Your task to perform on an android device: uninstall "Grab" Image 0: 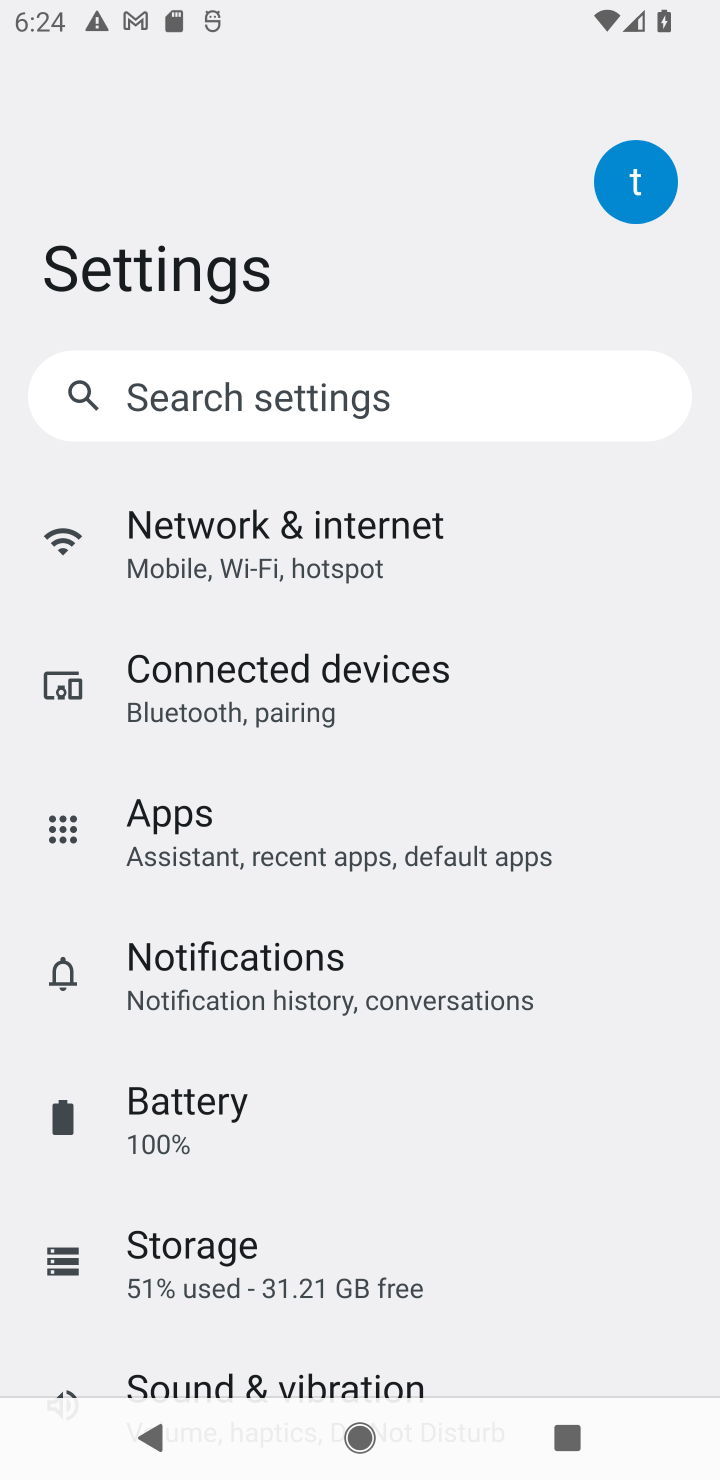
Step 0: press home button
Your task to perform on an android device: uninstall "Grab" Image 1: 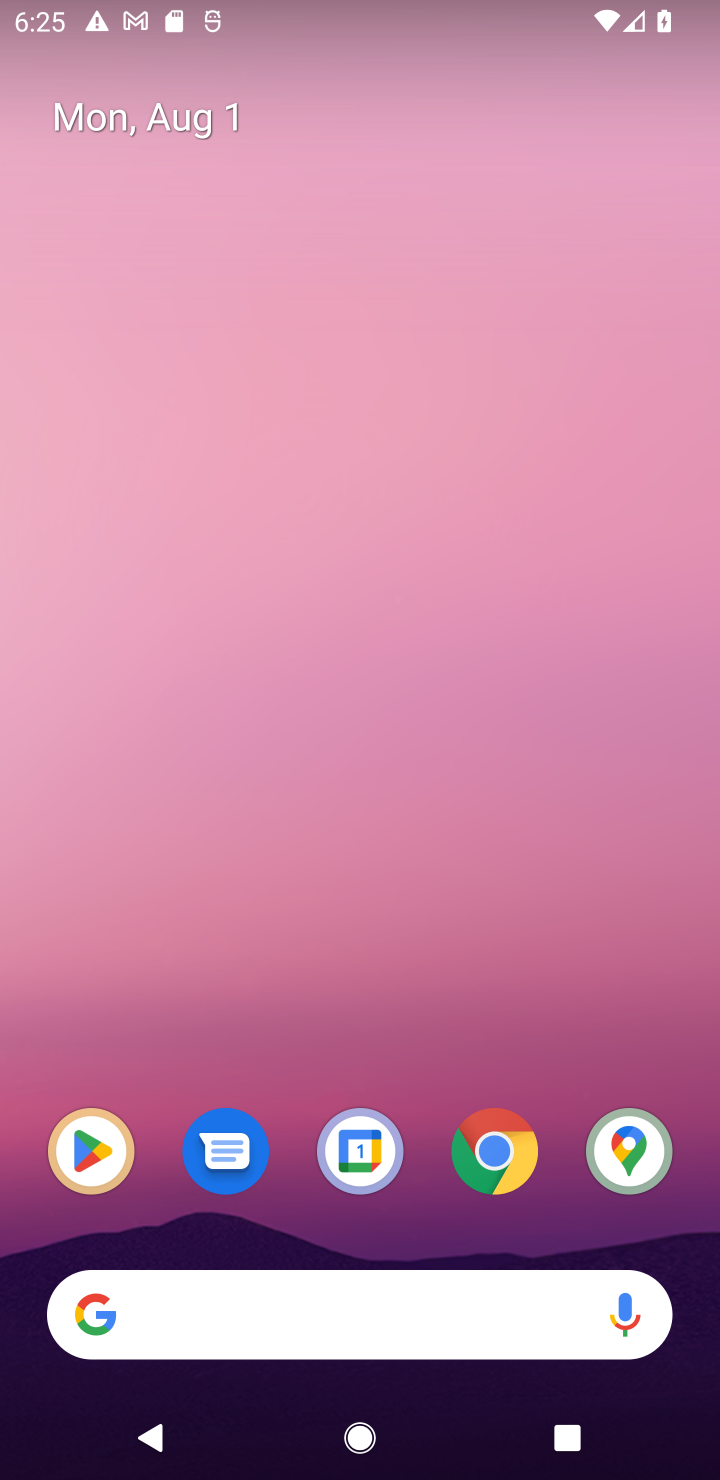
Step 1: drag from (220, 1317) to (234, 197)
Your task to perform on an android device: uninstall "Grab" Image 2: 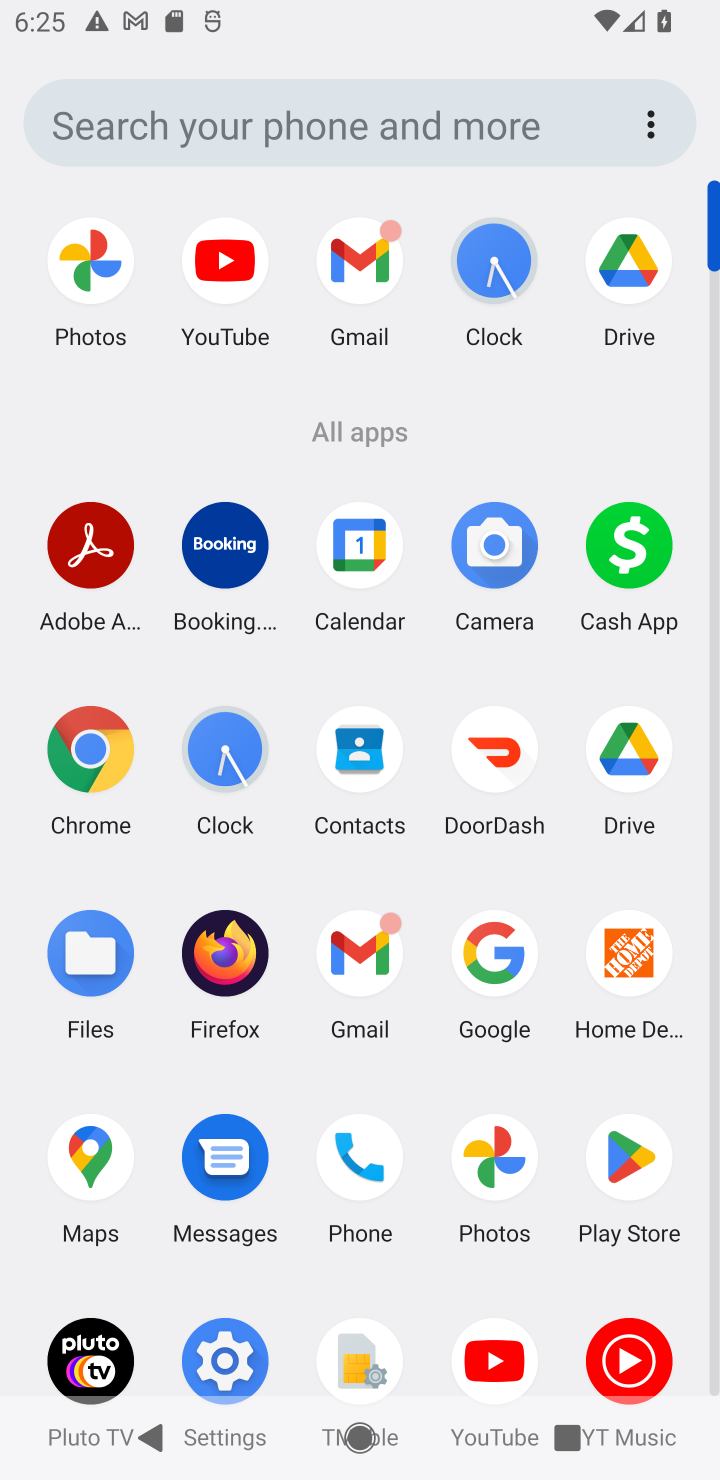
Step 2: click (621, 1169)
Your task to perform on an android device: uninstall "Grab" Image 3: 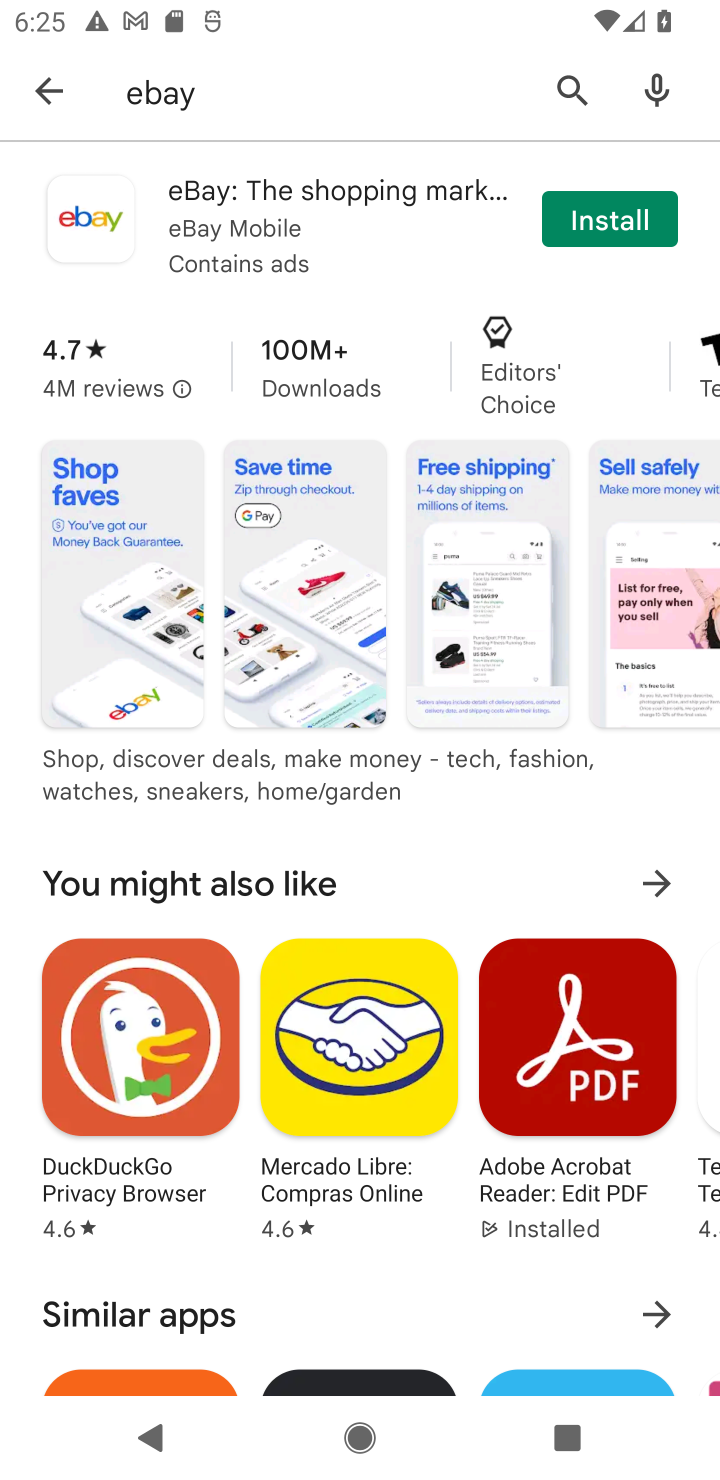
Step 3: click (551, 92)
Your task to perform on an android device: uninstall "Grab" Image 4: 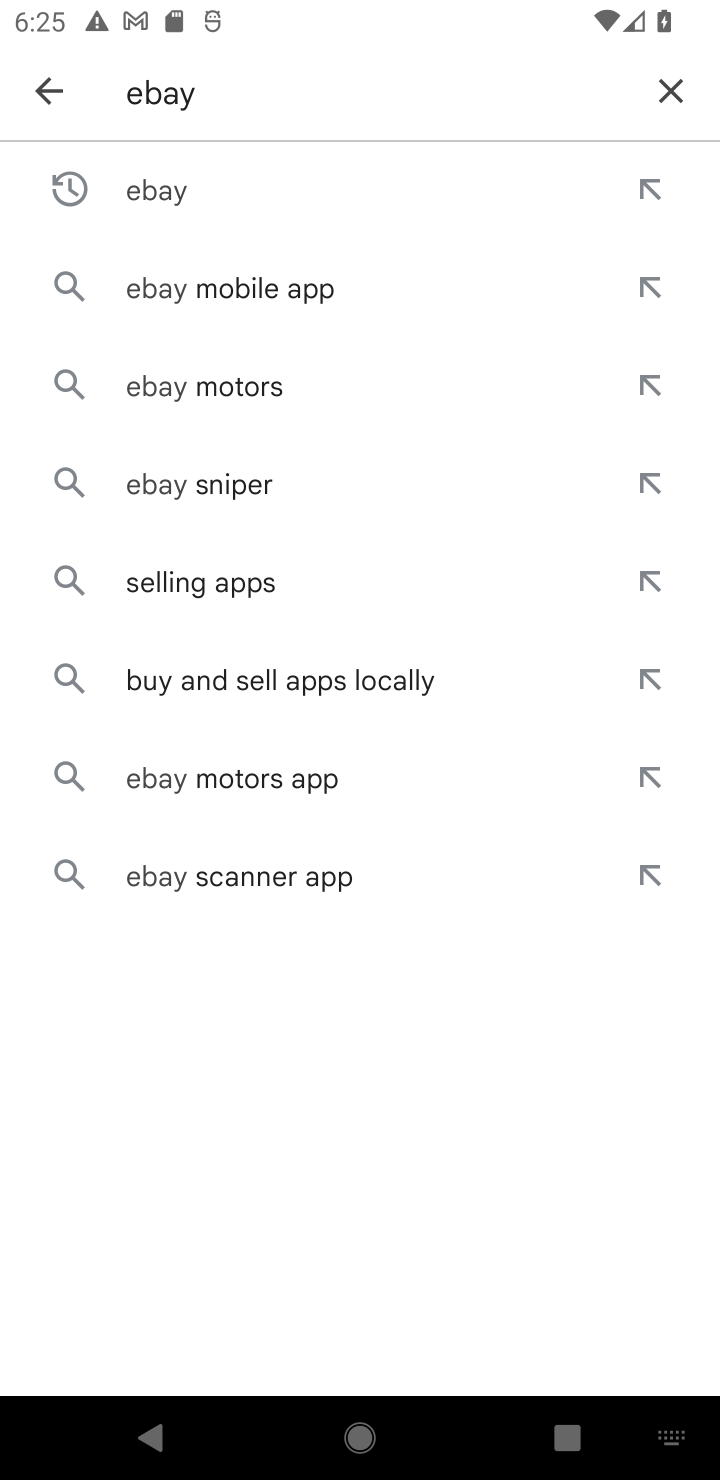
Step 4: click (674, 95)
Your task to perform on an android device: uninstall "Grab" Image 5: 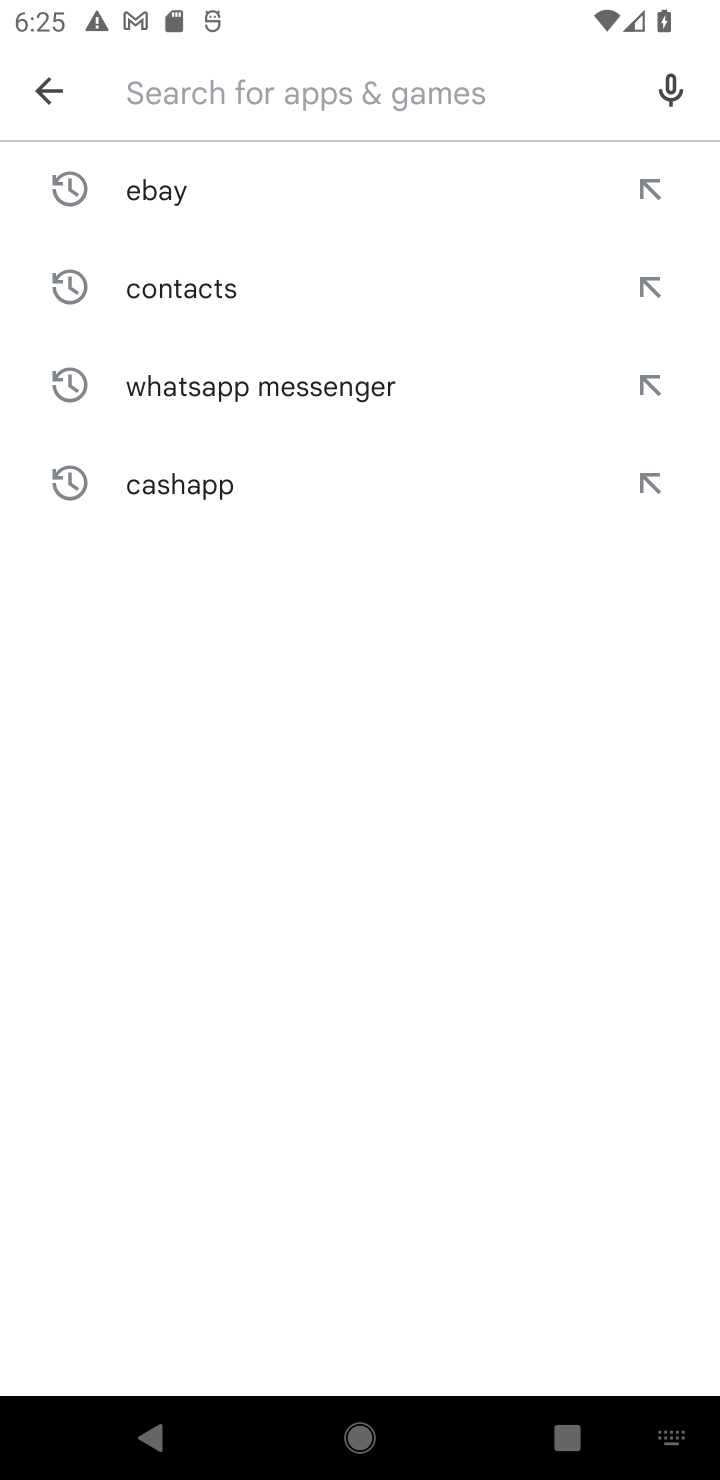
Step 5: type "grab"
Your task to perform on an android device: uninstall "Grab" Image 6: 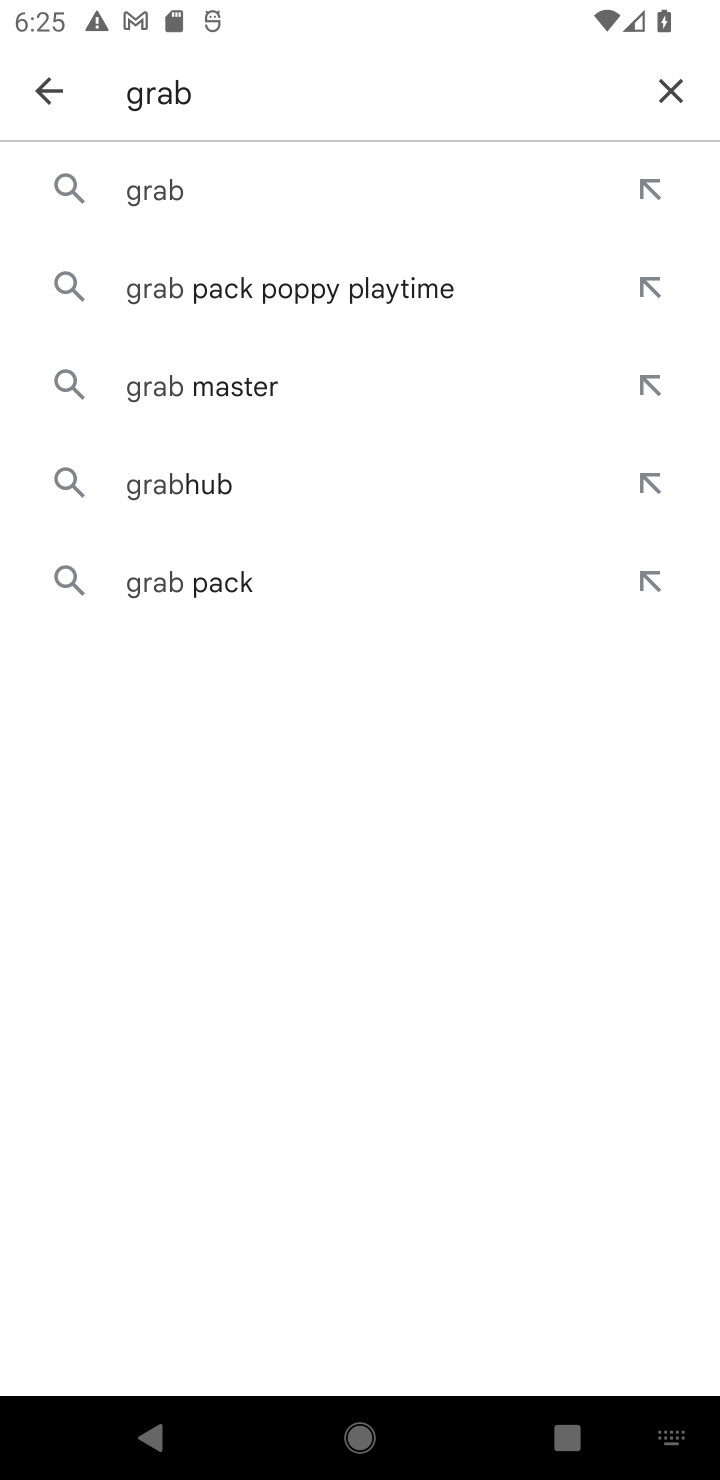
Step 6: click (173, 195)
Your task to perform on an android device: uninstall "Grab" Image 7: 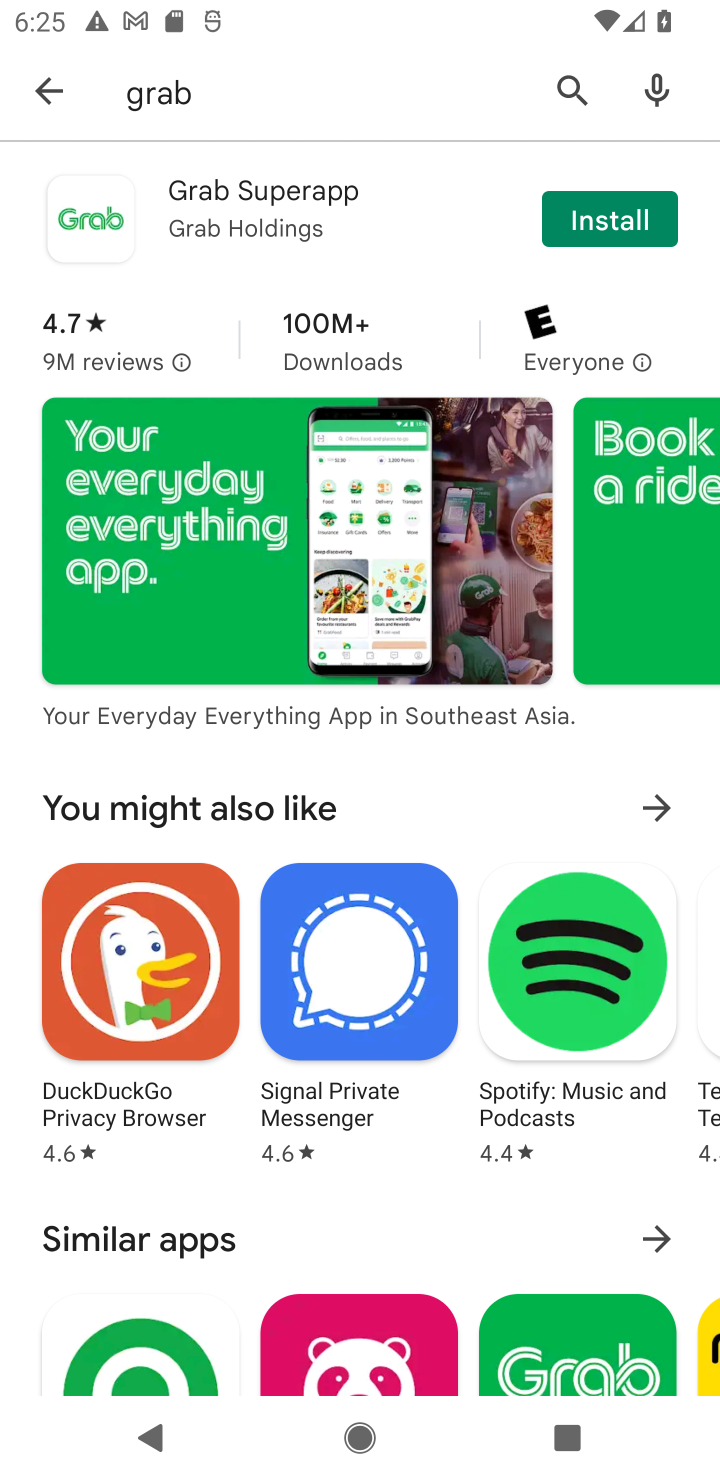
Step 7: task complete